Your task to perform on an android device: Open privacy settings Image 0: 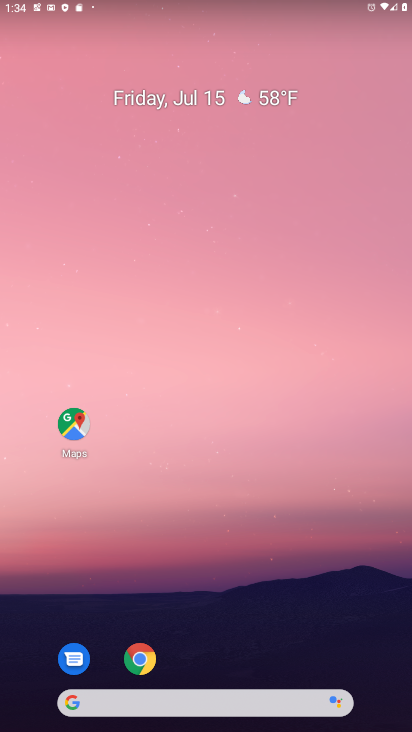
Step 0: drag from (213, 697) to (240, 81)
Your task to perform on an android device: Open privacy settings Image 1: 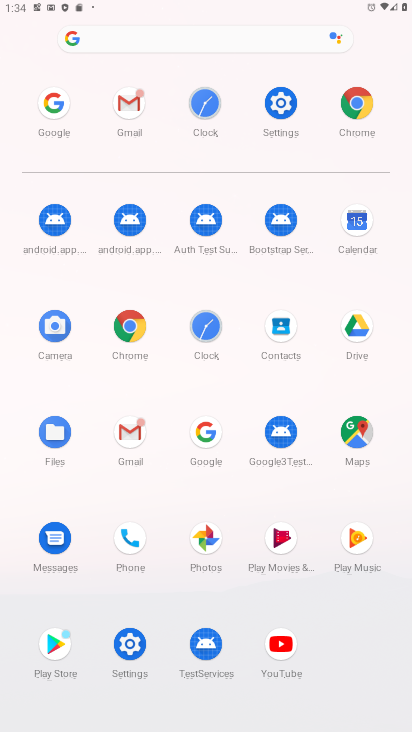
Step 1: click (279, 102)
Your task to perform on an android device: Open privacy settings Image 2: 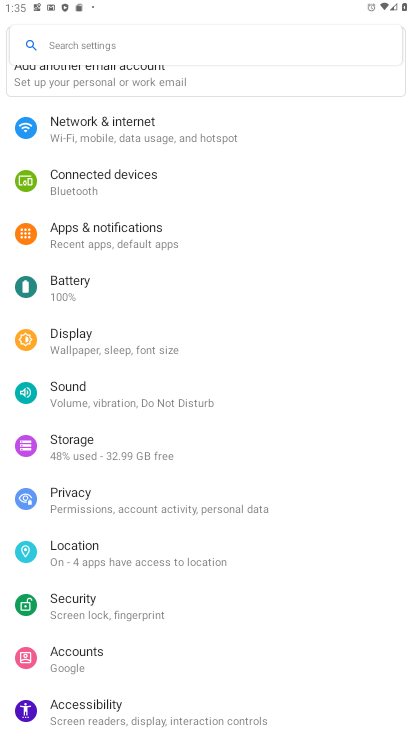
Step 2: click (59, 500)
Your task to perform on an android device: Open privacy settings Image 3: 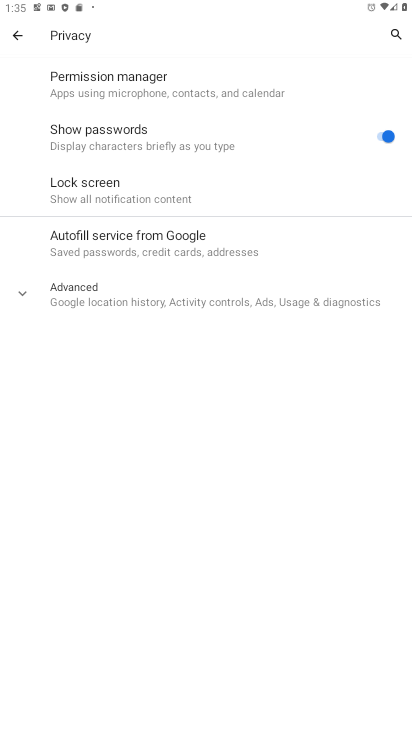
Step 3: task complete